Your task to perform on an android device: turn on airplane mode Image 0: 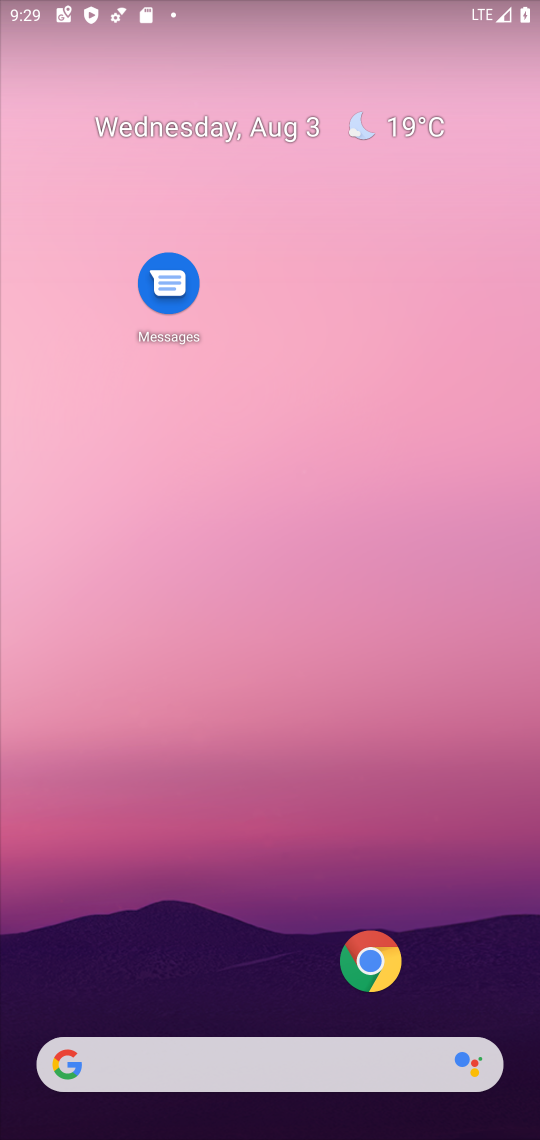
Step 0: drag from (310, 1001) to (272, 7)
Your task to perform on an android device: turn on airplane mode Image 1: 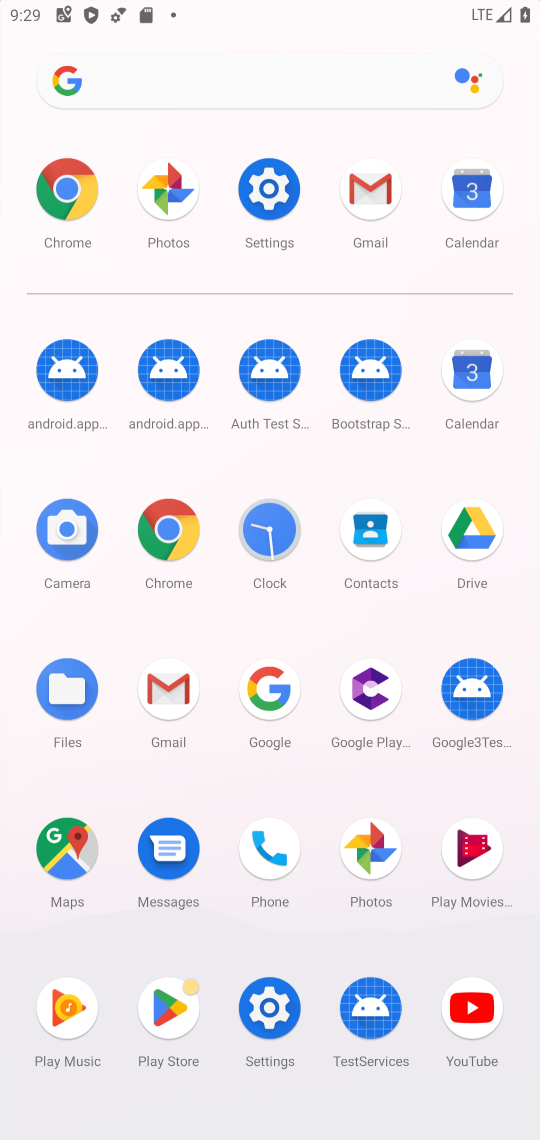
Step 1: click (286, 166)
Your task to perform on an android device: turn on airplane mode Image 2: 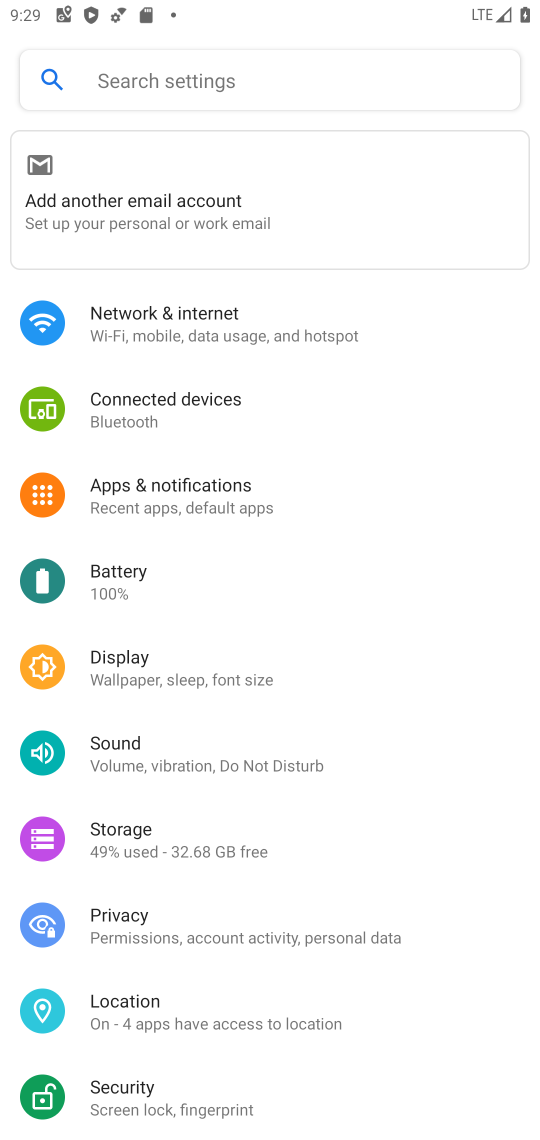
Step 2: click (134, 295)
Your task to perform on an android device: turn on airplane mode Image 3: 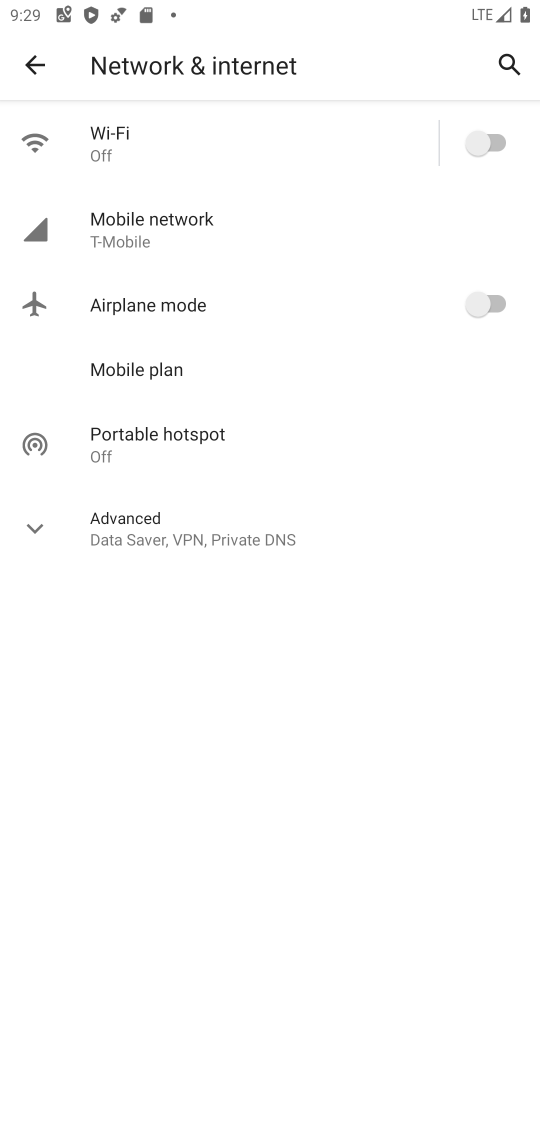
Step 3: click (473, 314)
Your task to perform on an android device: turn on airplane mode Image 4: 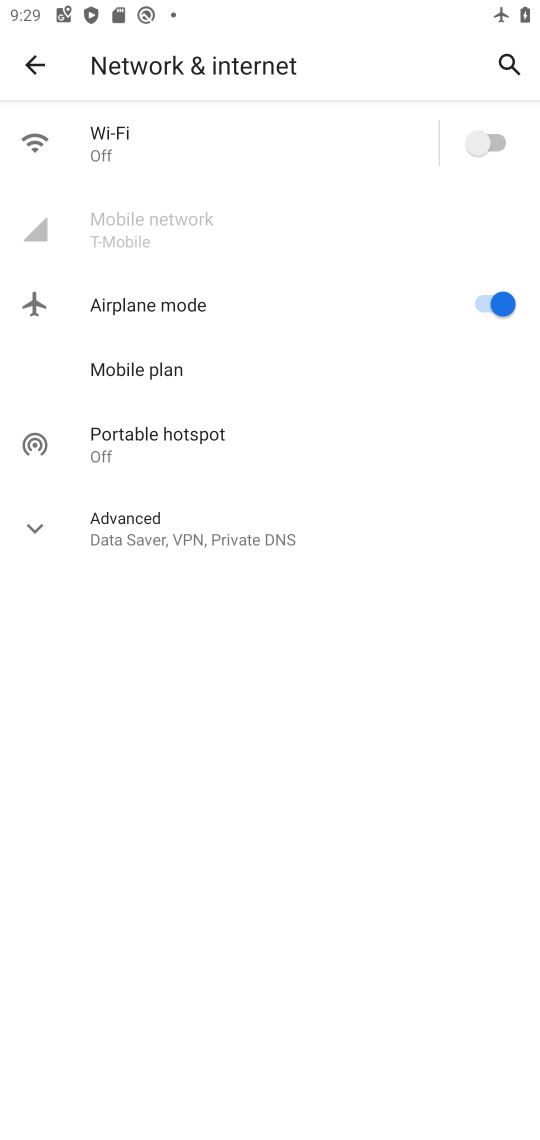
Step 4: task complete